Your task to perform on an android device: check android version Image 0: 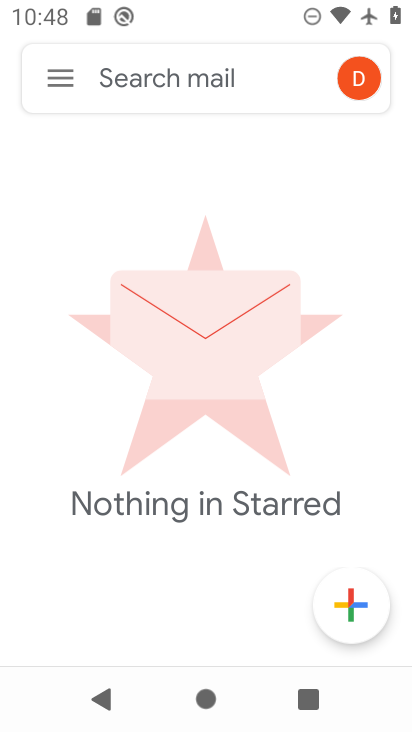
Step 0: press back button
Your task to perform on an android device: check android version Image 1: 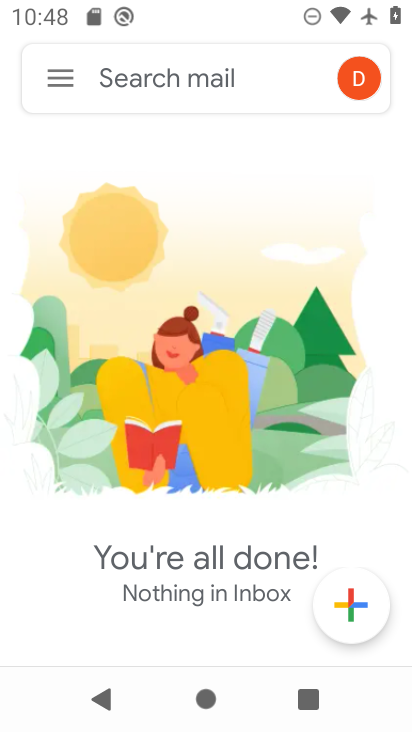
Step 1: press back button
Your task to perform on an android device: check android version Image 2: 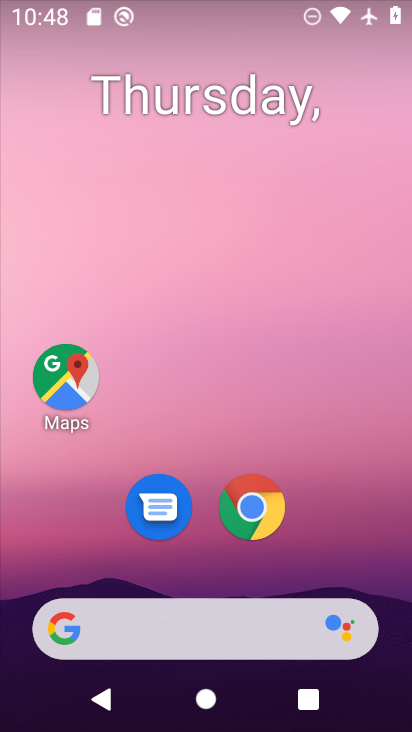
Step 2: drag from (307, 422) to (307, 24)
Your task to perform on an android device: check android version Image 3: 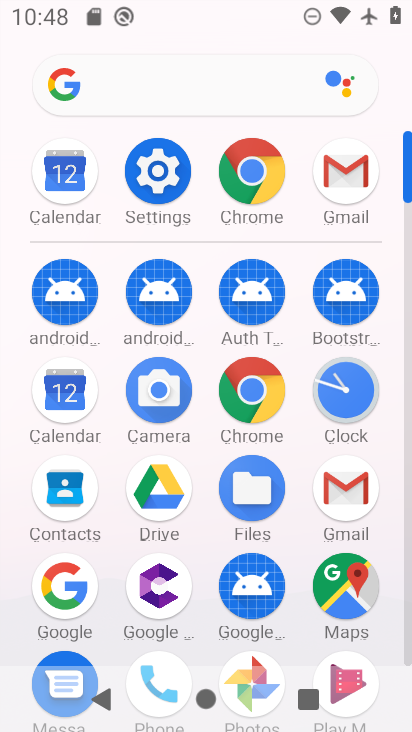
Step 3: click (158, 166)
Your task to perform on an android device: check android version Image 4: 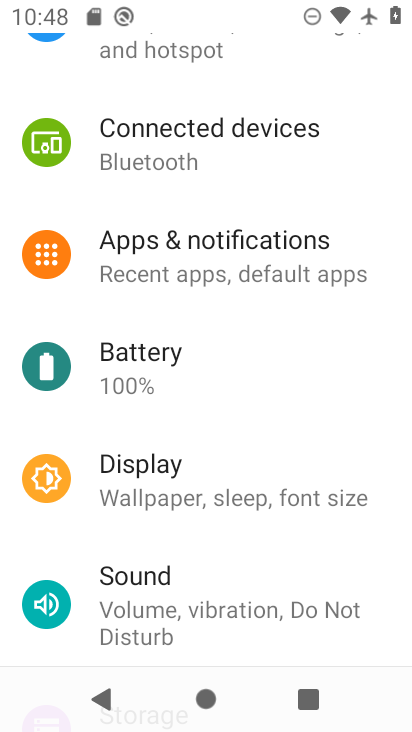
Step 4: drag from (312, 599) to (274, 86)
Your task to perform on an android device: check android version Image 5: 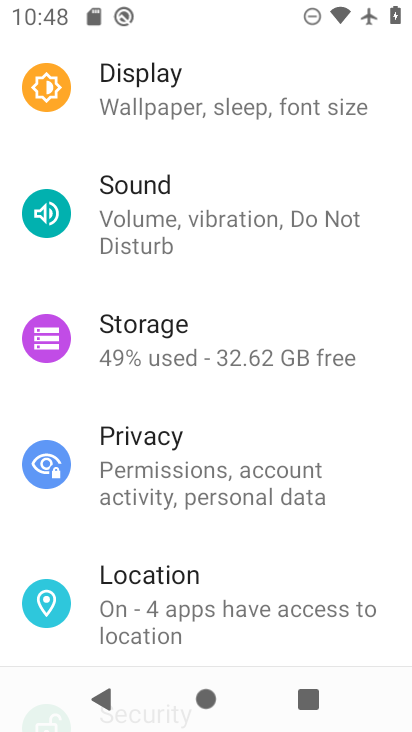
Step 5: drag from (276, 506) to (269, 84)
Your task to perform on an android device: check android version Image 6: 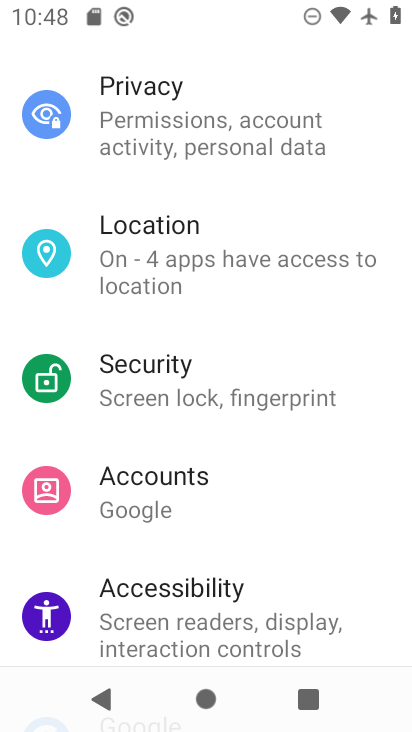
Step 6: drag from (272, 538) to (282, 109)
Your task to perform on an android device: check android version Image 7: 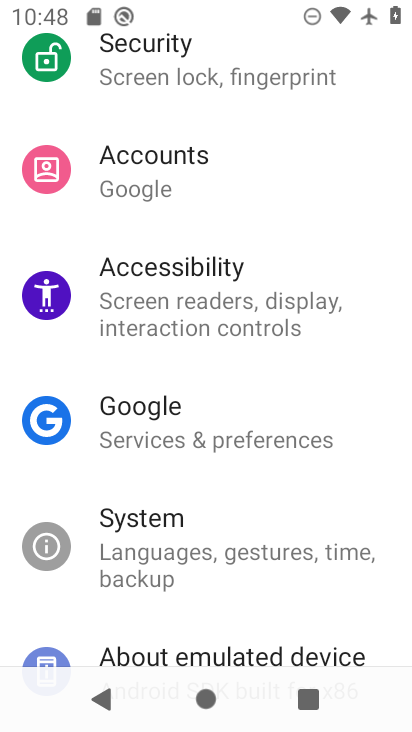
Step 7: drag from (238, 533) to (268, 117)
Your task to perform on an android device: check android version Image 8: 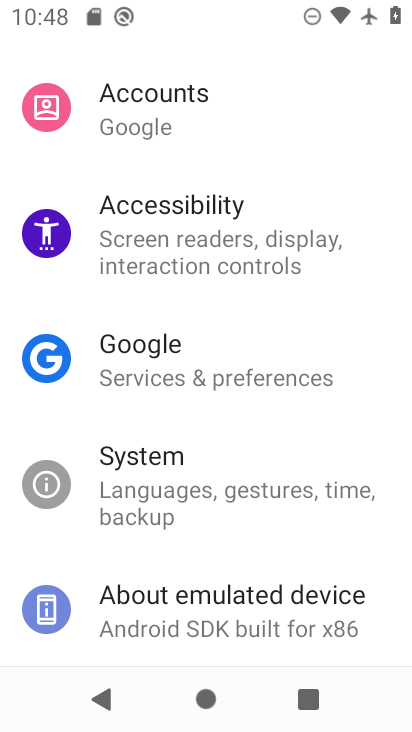
Step 8: click (215, 603)
Your task to perform on an android device: check android version Image 9: 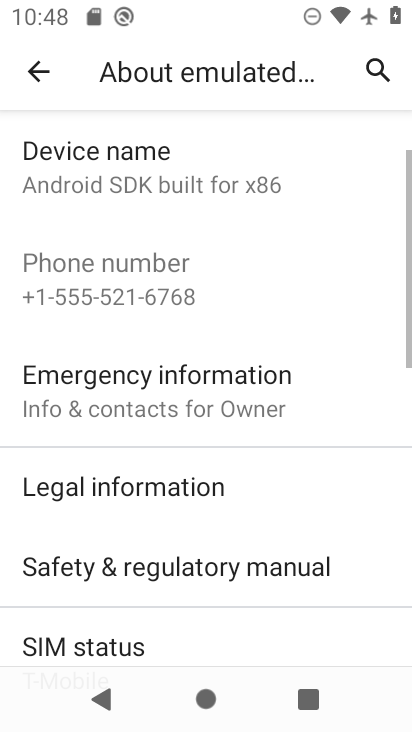
Step 9: task complete